Your task to perform on an android device: Toggle the flashlight Image 0: 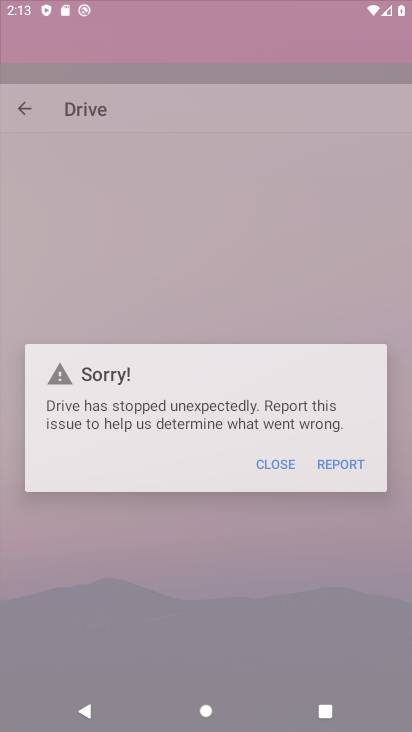
Step 0: drag from (283, 693) to (156, 258)
Your task to perform on an android device: Toggle the flashlight Image 1: 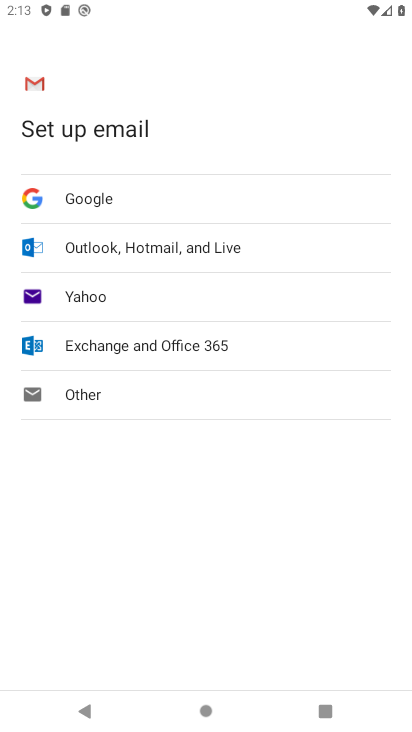
Step 1: task complete